Your task to perform on an android device: turn on data saver in the chrome app Image 0: 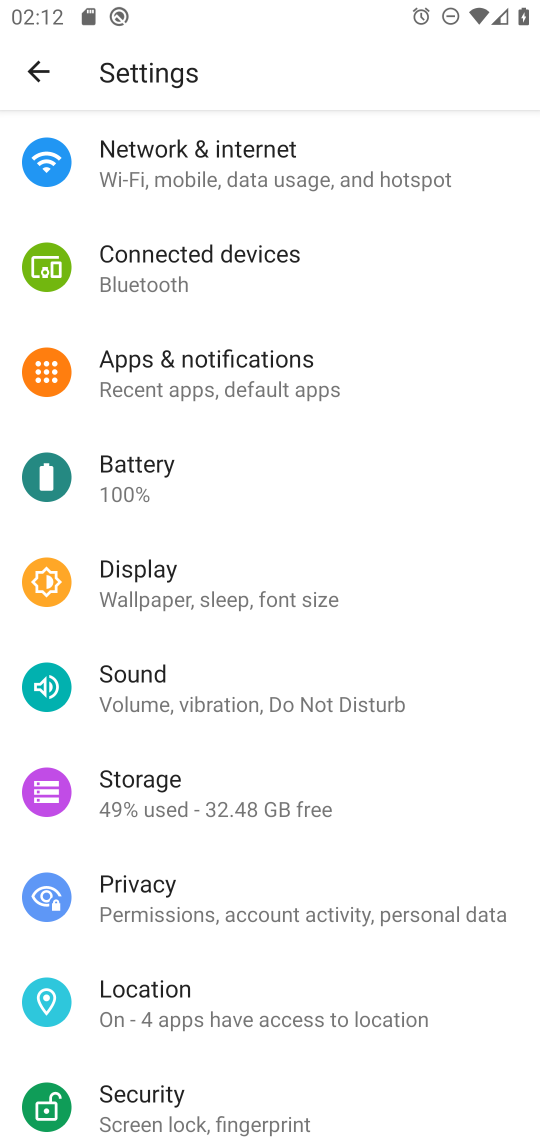
Step 0: press home button
Your task to perform on an android device: turn on data saver in the chrome app Image 1: 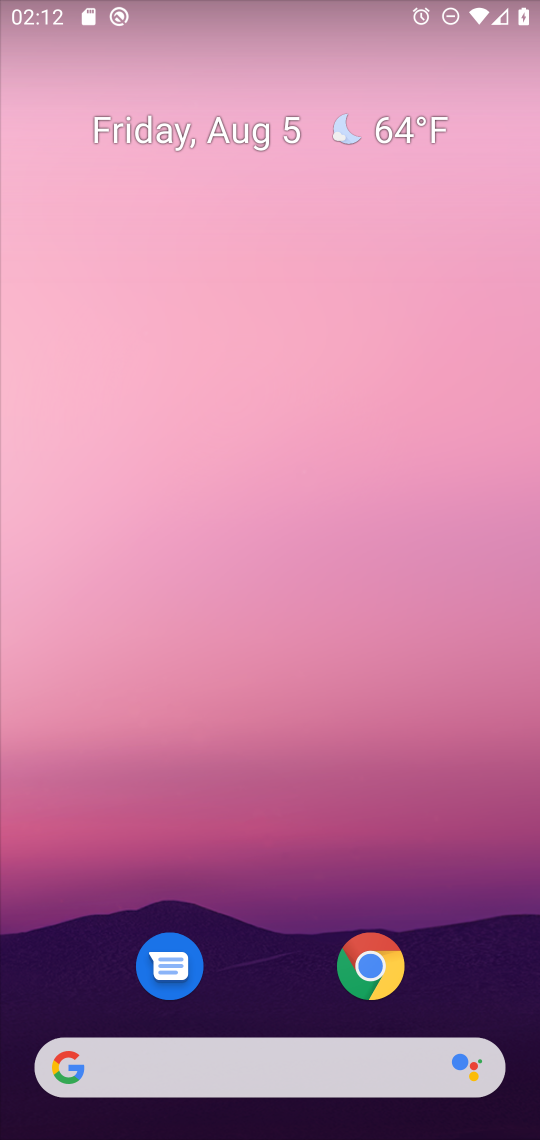
Step 1: click (363, 960)
Your task to perform on an android device: turn on data saver in the chrome app Image 2: 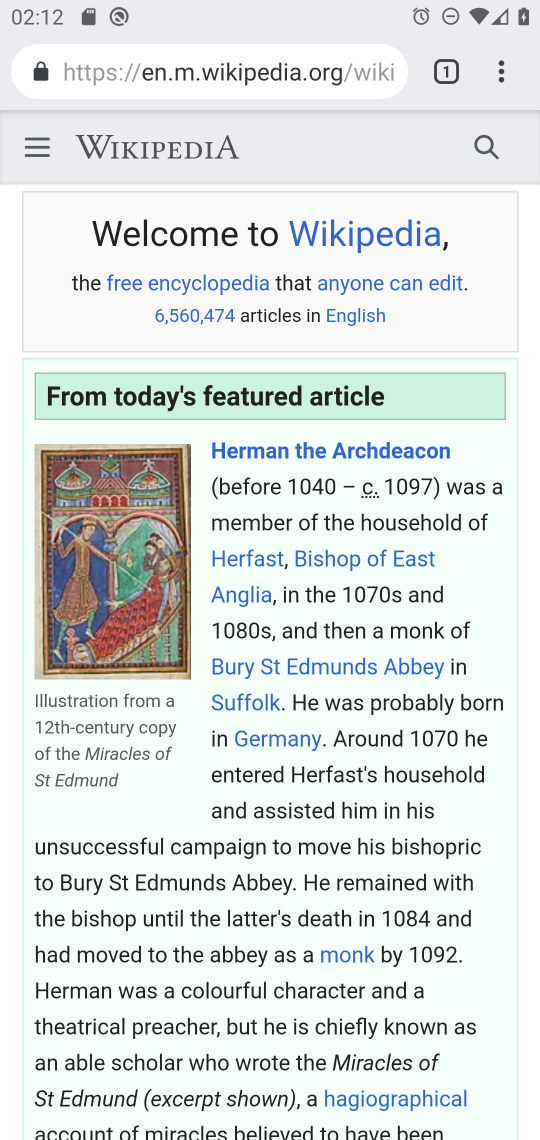
Step 2: click (496, 67)
Your task to perform on an android device: turn on data saver in the chrome app Image 3: 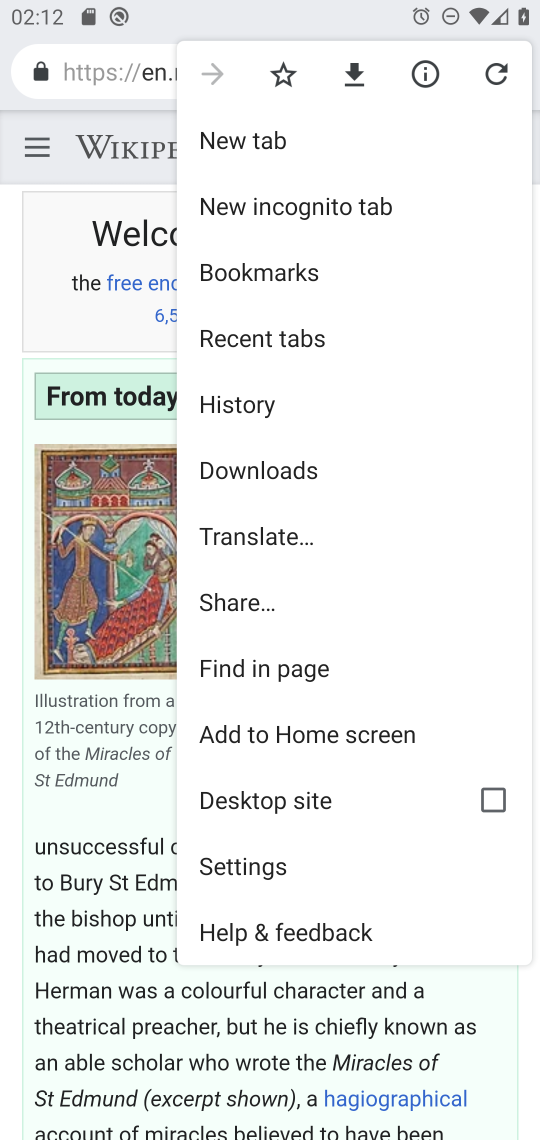
Step 3: click (269, 856)
Your task to perform on an android device: turn on data saver in the chrome app Image 4: 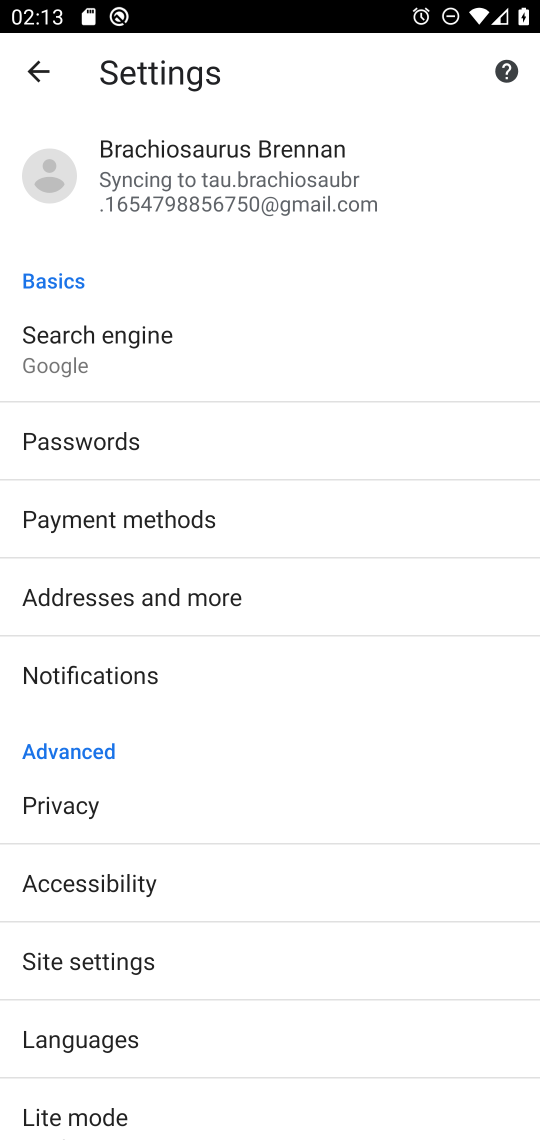
Step 4: click (170, 1112)
Your task to perform on an android device: turn on data saver in the chrome app Image 5: 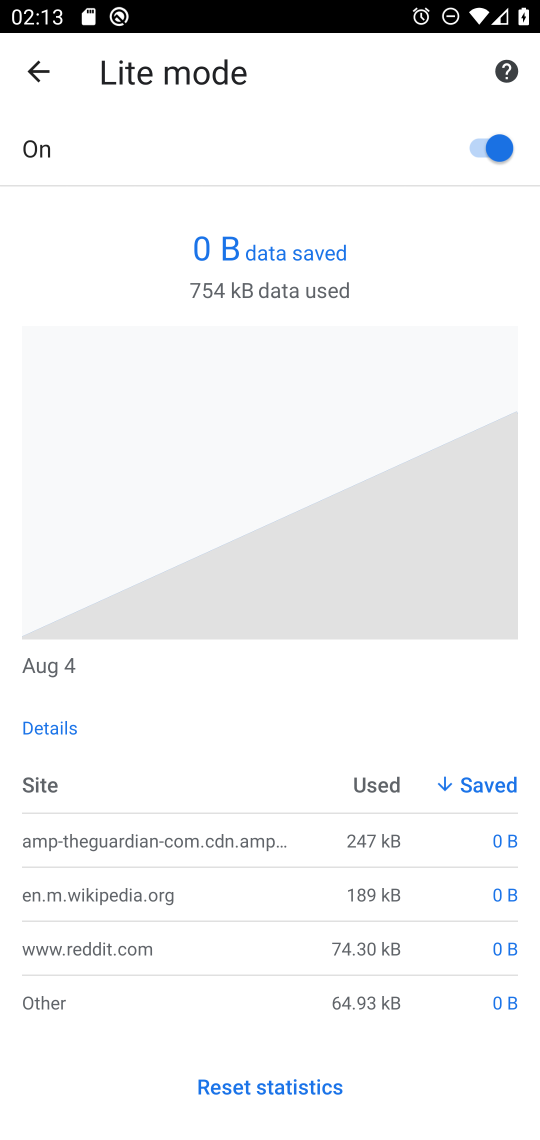
Step 5: task complete